Your task to perform on an android device: open app "Messages" (install if not already installed) and enter user name: "Hersey@inbox.com" and password: "facings" Image 0: 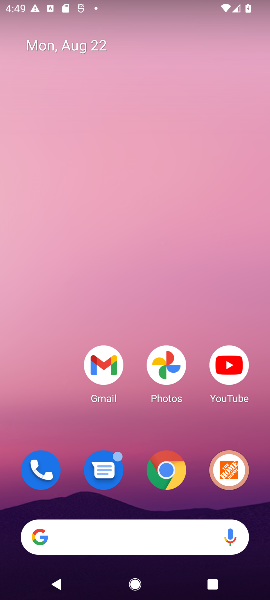
Step 0: drag from (217, 553) to (124, 139)
Your task to perform on an android device: open app "Messages" (install if not already installed) and enter user name: "Hersey@inbox.com" and password: "facings" Image 1: 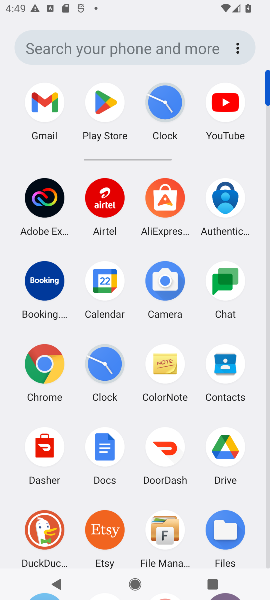
Step 1: click (107, 89)
Your task to perform on an android device: open app "Messages" (install if not already installed) and enter user name: "Hersey@inbox.com" and password: "facings" Image 2: 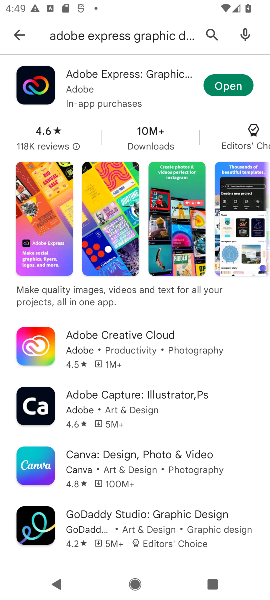
Step 2: click (29, 32)
Your task to perform on an android device: open app "Messages" (install if not already installed) and enter user name: "Hersey@inbox.com" and password: "facings" Image 3: 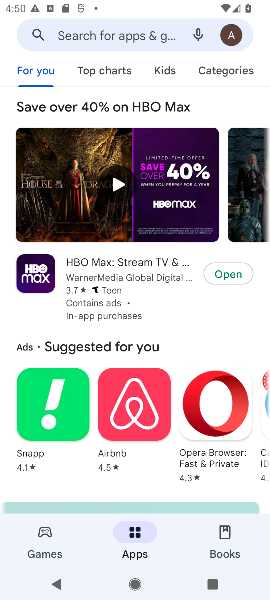
Step 3: click (114, 26)
Your task to perform on an android device: open app "Messages" (install if not already installed) and enter user name: "Hersey@inbox.com" and password: "facings" Image 4: 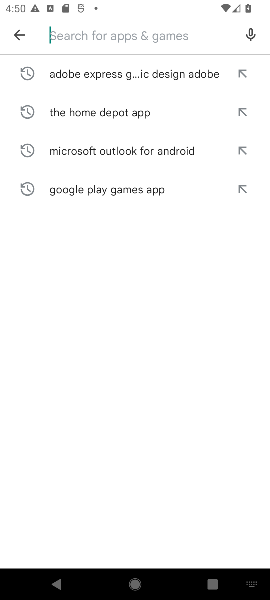
Step 4: type "Messages "
Your task to perform on an android device: open app "Messages" (install if not already installed) and enter user name: "Hersey@inbox.com" and password: "facings" Image 5: 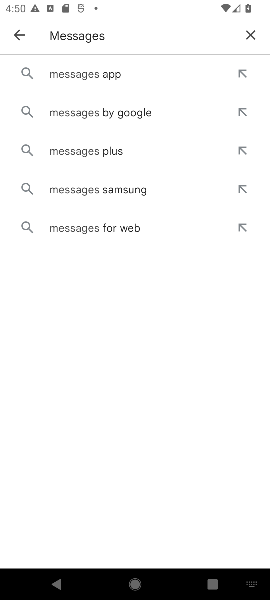
Step 5: click (70, 74)
Your task to perform on an android device: open app "Messages" (install if not already installed) and enter user name: "Hersey@inbox.com" and password: "facings" Image 6: 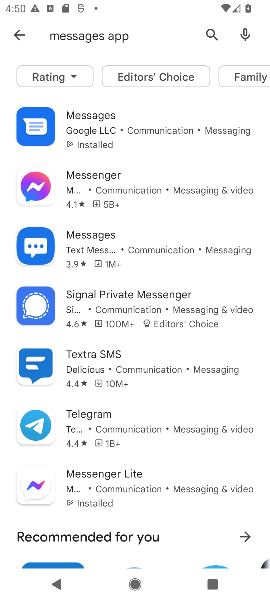
Step 6: click (111, 129)
Your task to perform on an android device: open app "Messages" (install if not already installed) and enter user name: "Hersey@inbox.com" and password: "facings" Image 7: 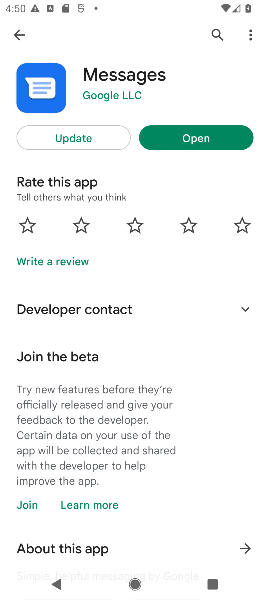
Step 7: click (204, 127)
Your task to perform on an android device: open app "Messages" (install if not already installed) and enter user name: "Hersey@inbox.com" and password: "facings" Image 8: 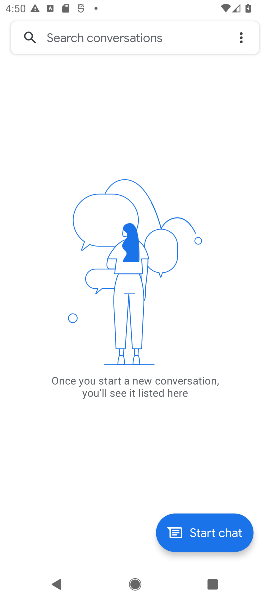
Step 8: task complete